Your task to perform on an android device: Open CNN.com Image 0: 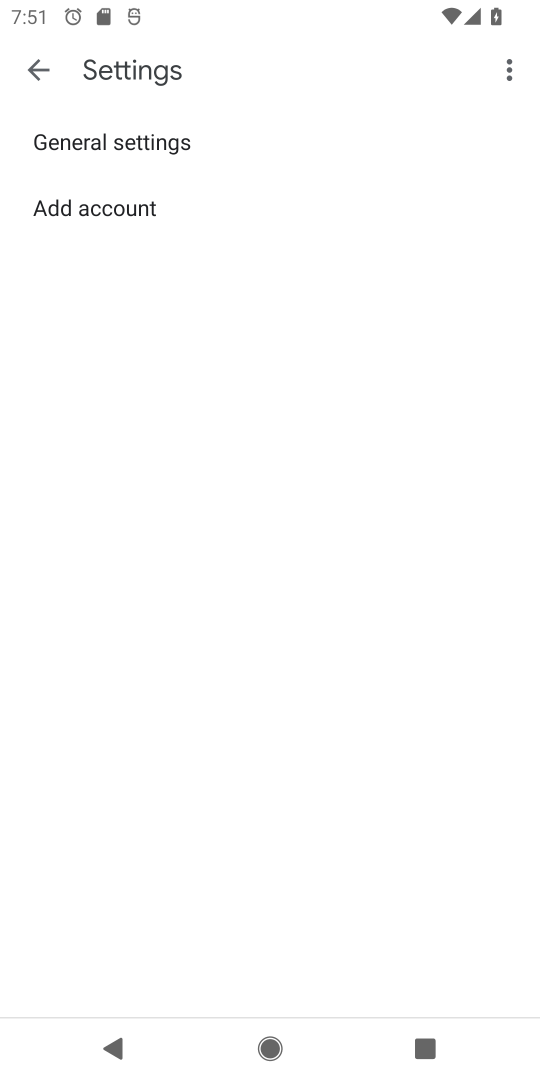
Step 0: press home button
Your task to perform on an android device: Open CNN.com Image 1: 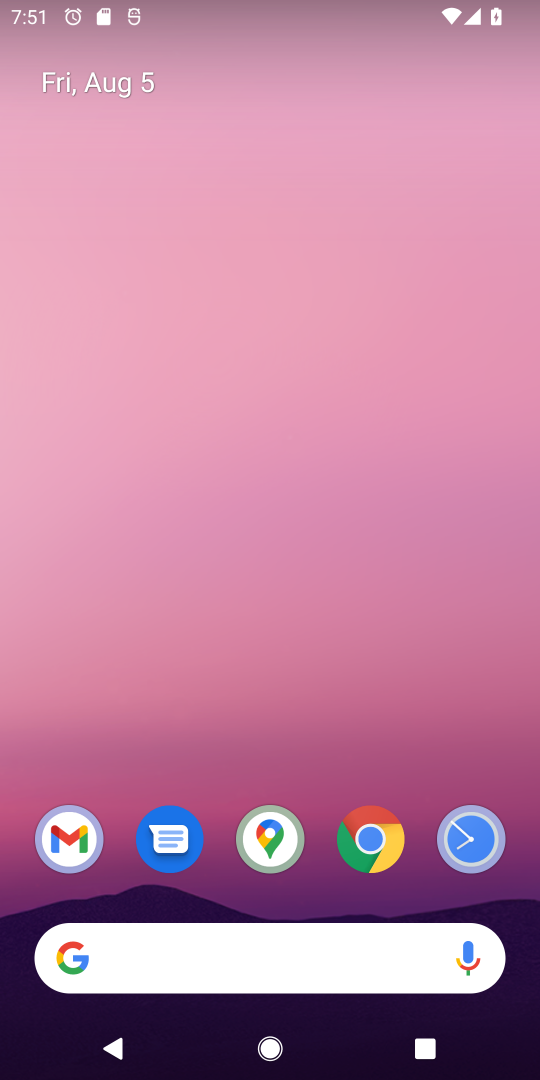
Step 1: click (378, 852)
Your task to perform on an android device: Open CNN.com Image 2: 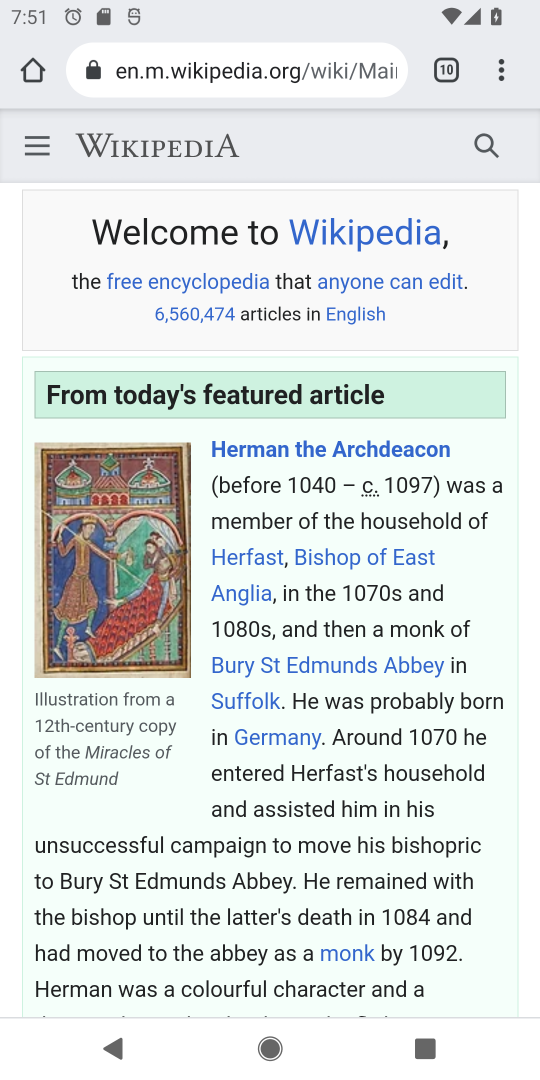
Step 2: click (446, 61)
Your task to perform on an android device: Open CNN.com Image 3: 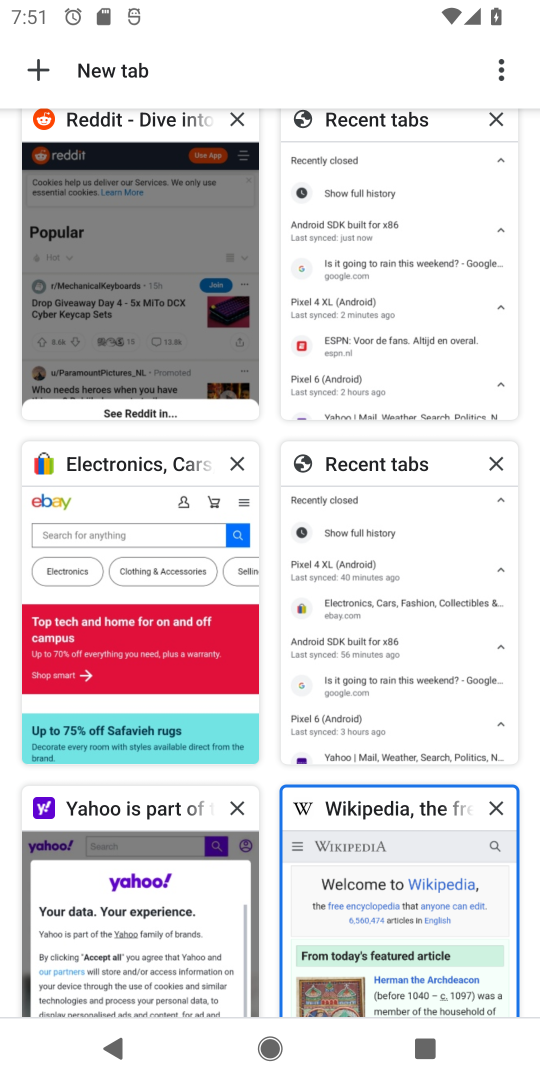
Step 3: click (48, 63)
Your task to perform on an android device: Open CNN.com Image 4: 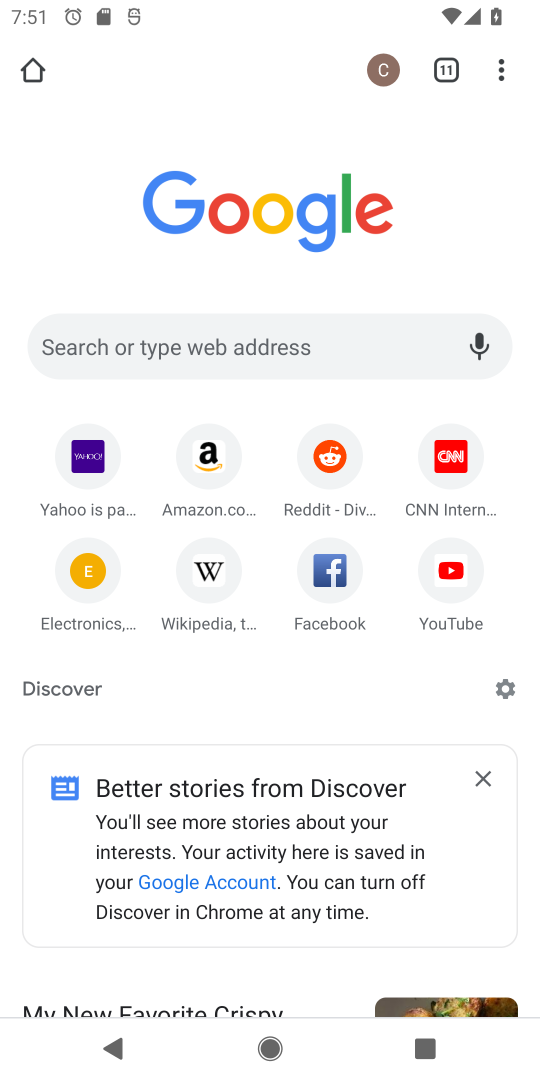
Step 4: click (187, 361)
Your task to perform on an android device: Open CNN.com Image 5: 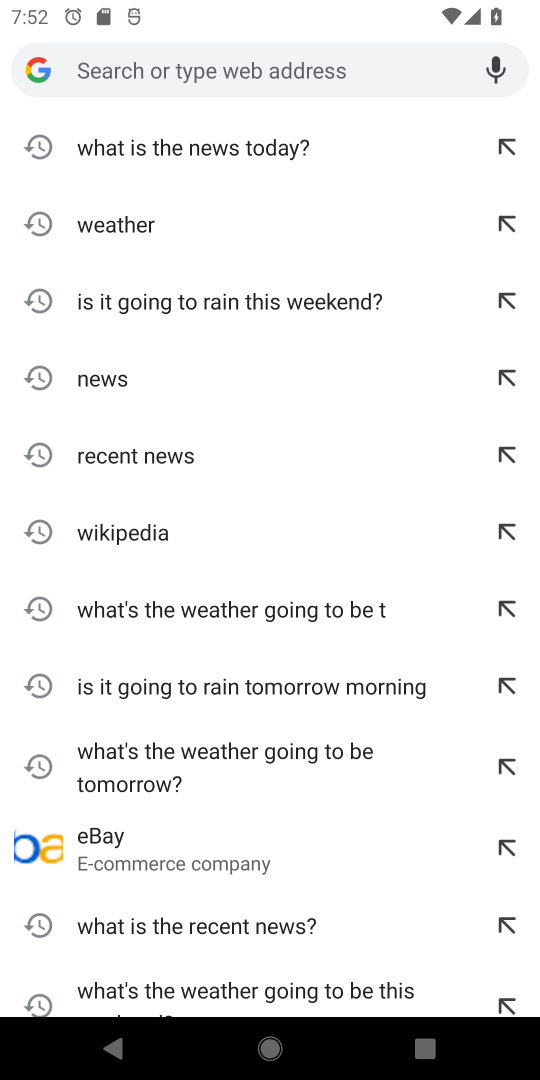
Step 5: type "CNN.com"
Your task to perform on an android device: Open CNN.com Image 6: 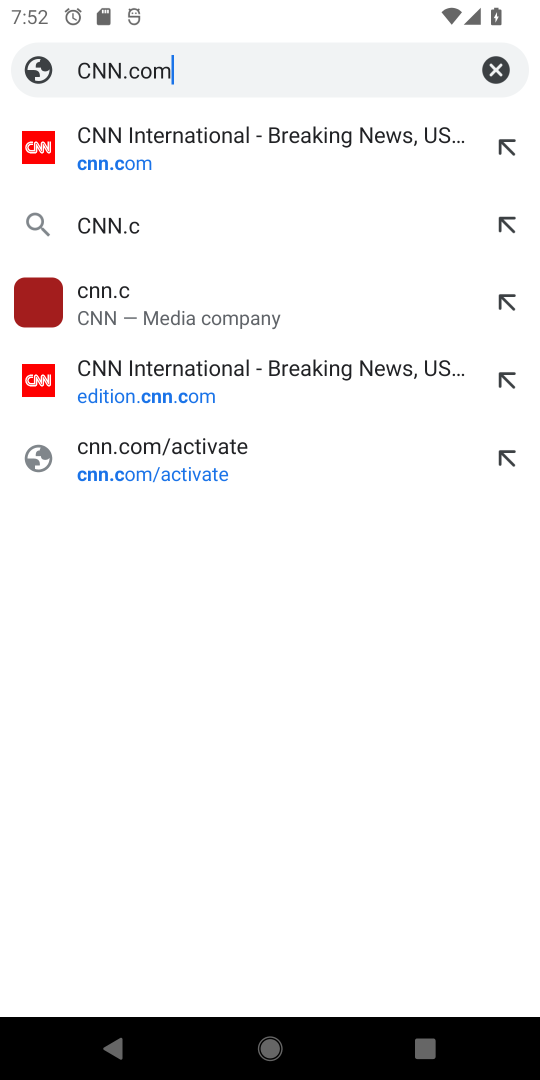
Step 6: type ""
Your task to perform on an android device: Open CNN.com Image 7: 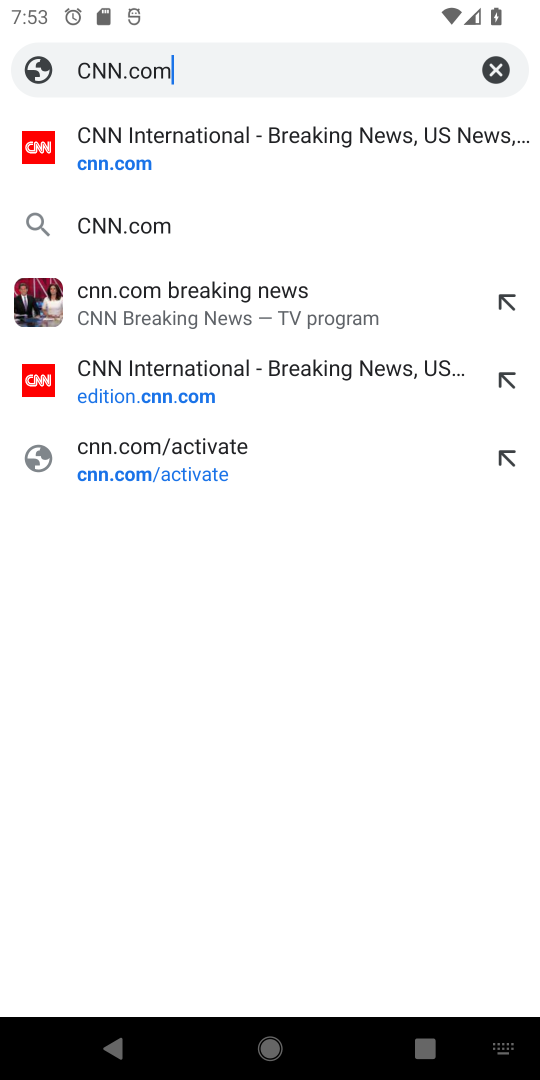
Step 7: click (256, 148)
Your task to perform on an android device: Open CNN.com Image 8: 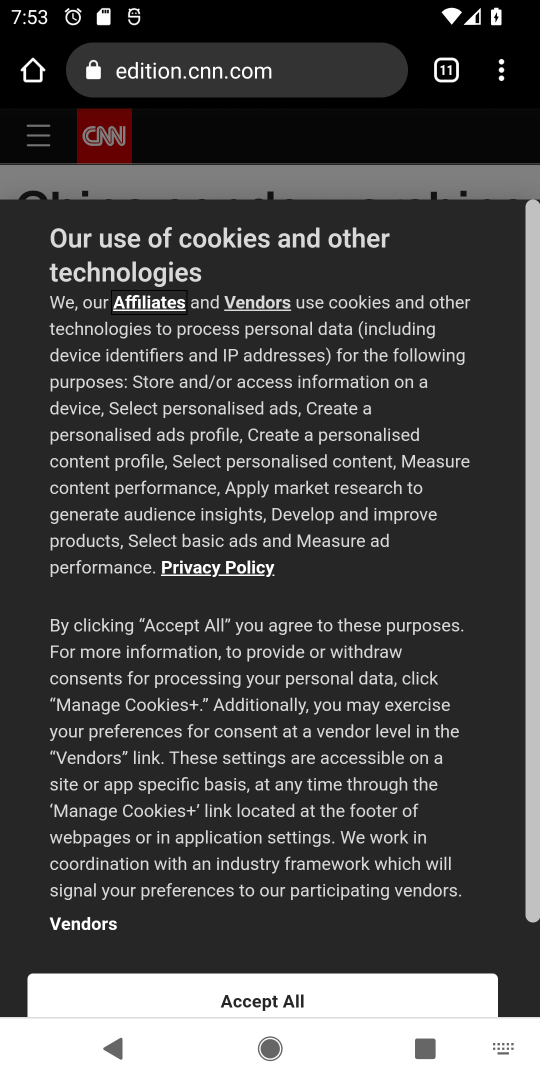
Step 8: task complete